Your task to perform on an android device: open chrome and create a bookmark for the current page Image 0: 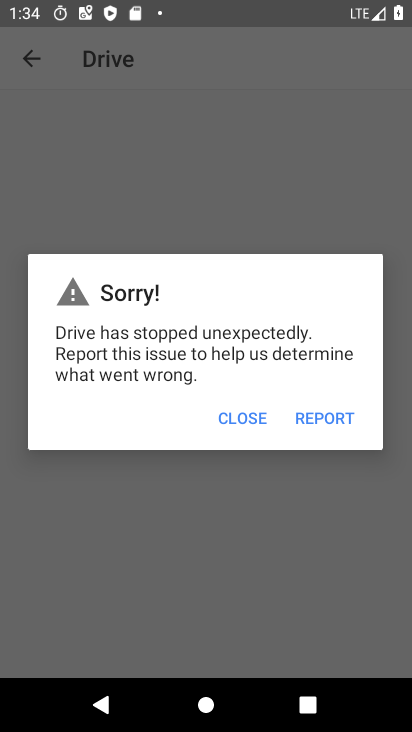
Step 0: click (244, 407)
Your task to perform on an android device: open chrome and create a bookmark for the current page Image 1: 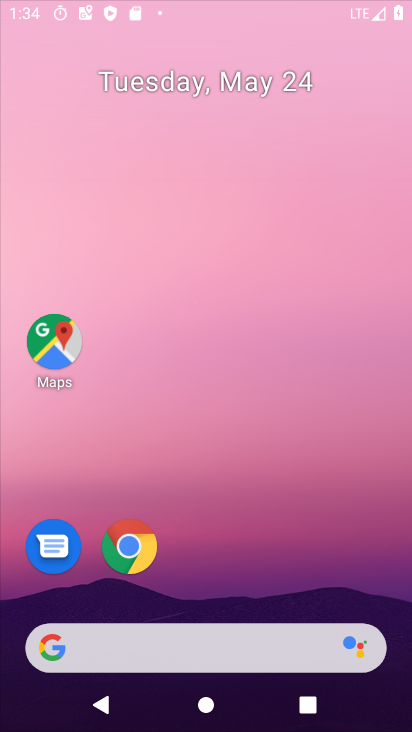
Step 1: press home button
Your task to perform on an android device: open chrome and create a bookmark for the current page Image 2: 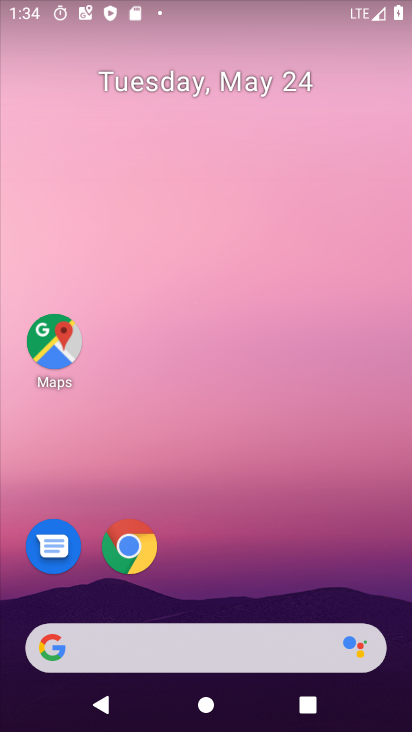
Step 2: click (142, 543)
Your task to perform on an android device: open chrome and create a bookmark for the current page Image 3: 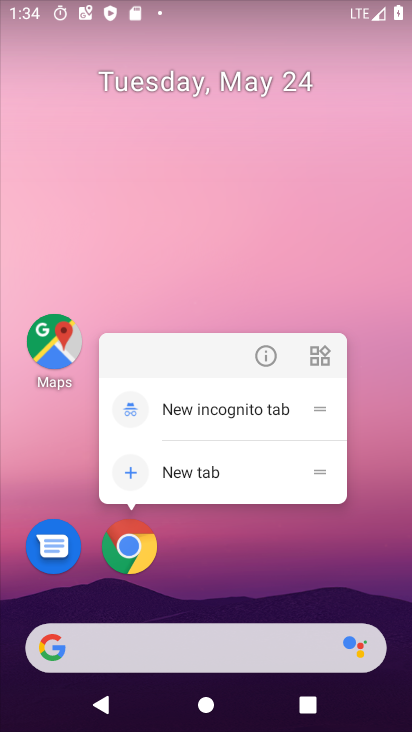
Step 3: click (260, 377)
Your task to perform on an android device: open chrome and create a bookmark for the current page Image 4: 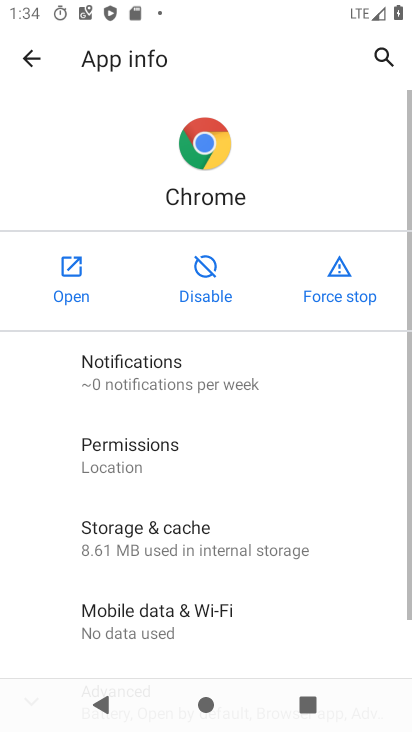
Step 4: click (66, 264)
Your task to perform on an android device: open chrome and create a bookmark for the current page Image 5: 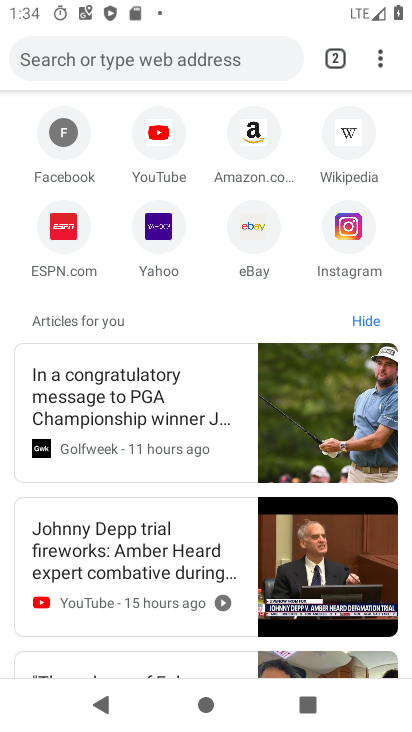
Step 5: click (367, 70)
Your task to perform on an android device: open chrome and create a bookmark for the current page Image 6: 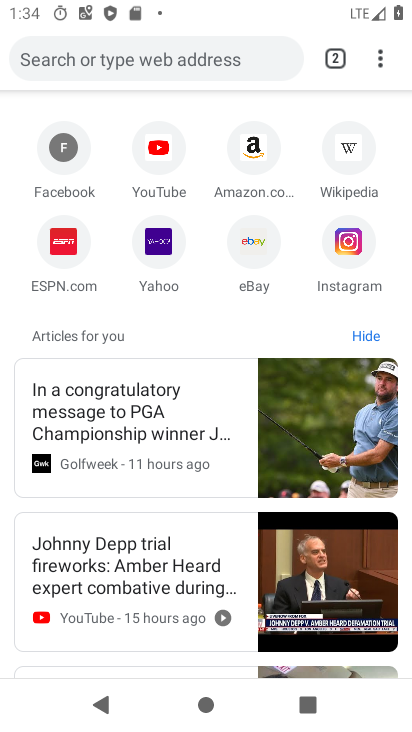
Step 6: click (382, 63)
Your task to perform on an android device: open chrome and create a bookmark for the current page Image 7: 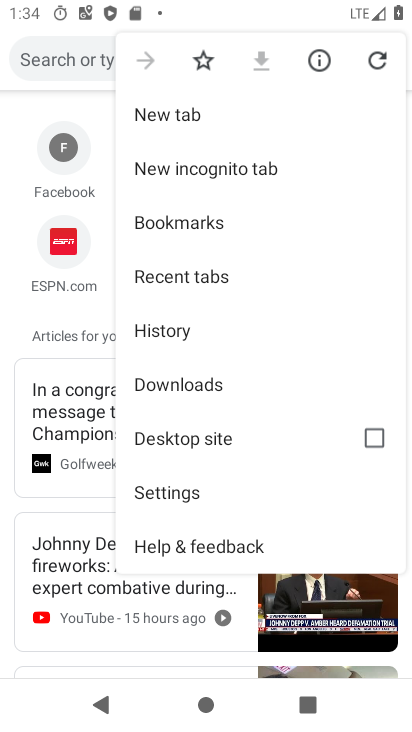
Step 7: click (200, 60)
Your task to perform on an android device: open chrome and create a bookmark for the current page Image 8: 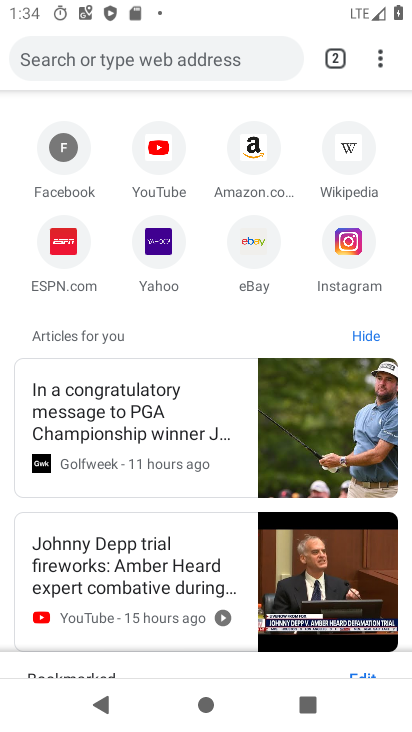
Step 8: task complete